Your task to perform on an android device: Search for "usb-a to usb-b" on amazon, select the first entry, add it to the cart, then select checkout. Image 0: 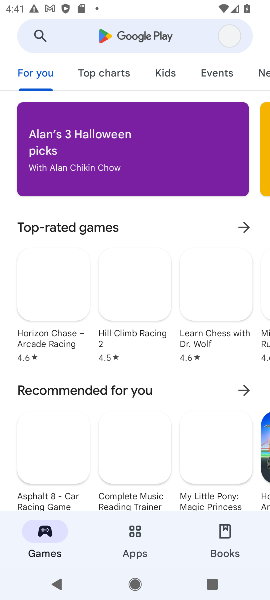
Step 0: press home button
Your task to perform on an android device: Search for "usb-a to usb-b" on amazon, select the first entry, add it to the cart, then select checkout. Image 1: 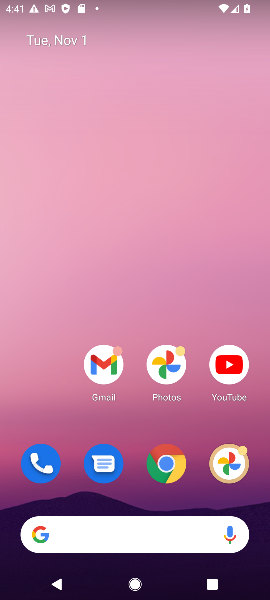
Step 1: click (164, 468)
Your task to perform on an android device: Search for "usb-a to usb-b" on amazon, select the first entry, add it to the cart, then select checkout. Image 2: 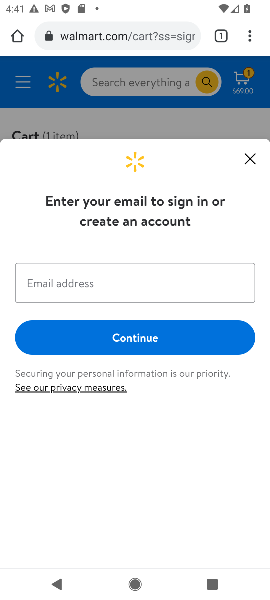
Step 2: click (252, 157)
Your task to perform on an android device: Search for "usb-a to usb-b" on amazon, select the first entry, add it to the cart, then select checkout. Image 3: 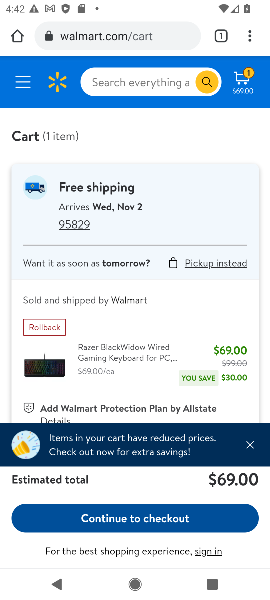
Step 3: click (133, 38)
Your task to perform on an android device: Search for "usb-a to usb-b" on amazon, select the first entry, add it to the cart, then select checkout. Image 4: 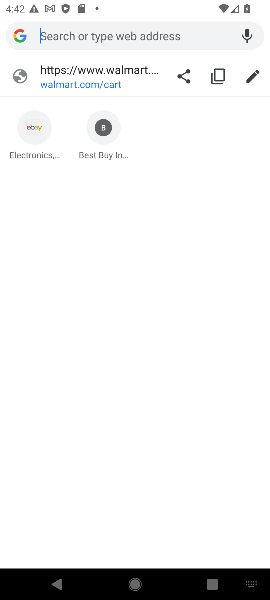
Step 4: type "amazon"
Your task to perform on an android device: Search for "usb-a to usb-b" on amazon, select the first entry, add it to the cart, then select checkout. Image 5: 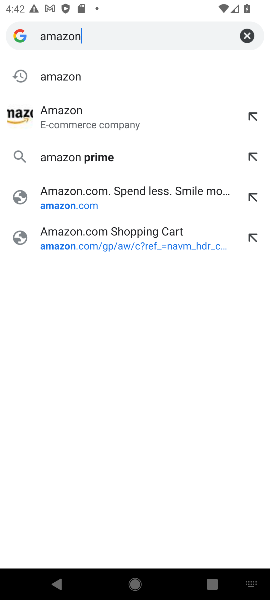
Step 5: click (56, 74)
Your task to perform on an android device: Search for "usb-a to usb-b" on amazon, select the first entry, add it to the cart, then select checkout. Image 6: 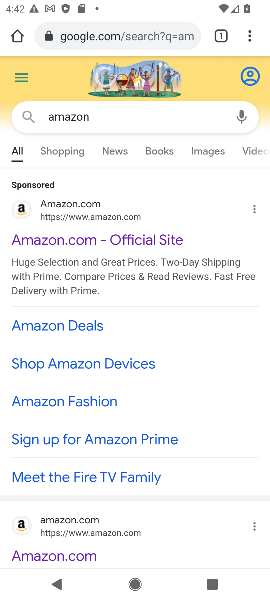
Step 6: click (107, 240)
Your task to perform on an android device: Search for "usb-a to usb-b" on amazon, select the first entry, add it to the cart, then select checkout. Image 7: 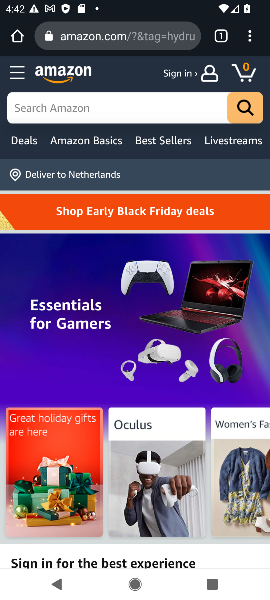
Step 7: click (81, 110)
Your task to perform on an android device: Search for "usb-a to usb-b" on amazon, select the first entry, add it to the cart, then select checkout. Image 8: 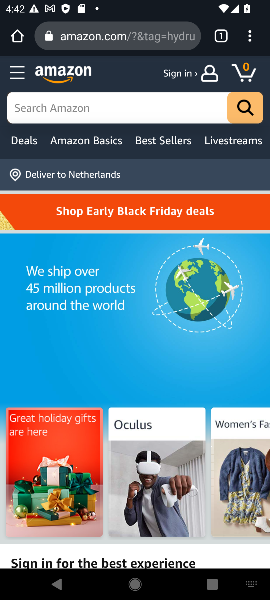
Step 8: type "usb-a to usb-b"
Your task to perform on an android device: Search for "usb-a to usb-b" on amazon, select the first entry, add it to the cart, then select checkout. Image 9: 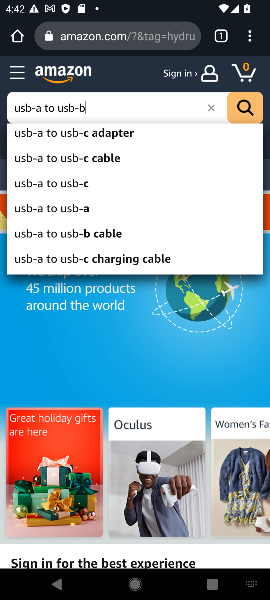
Step 9: press enter
Your task to perform on an android device: Search for "usb-a to usb-b" on amazon, select the first entry, add it to the cart, then select checkout. Image 10: 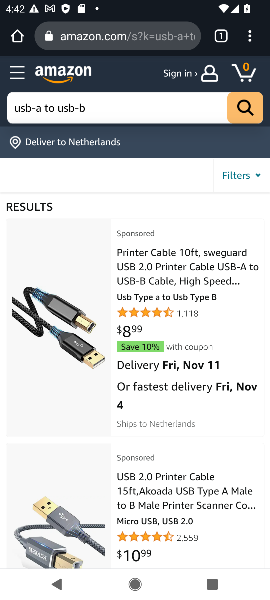
Step 10: click (160, 281)
Your task to perform on an android device: Search for "usb-a to usb-b" on amazon, select the first entry, add it to the cart, then select checkout. Image 11: 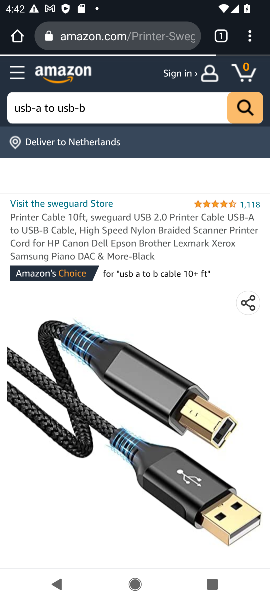
Step 11: drag from (102, 540) to (90, 139)
Your task to perform on an android device: Search for "usb-a to usb-b" on amazon, select the first entry, add it to the cart, then select checkout. Image 12: 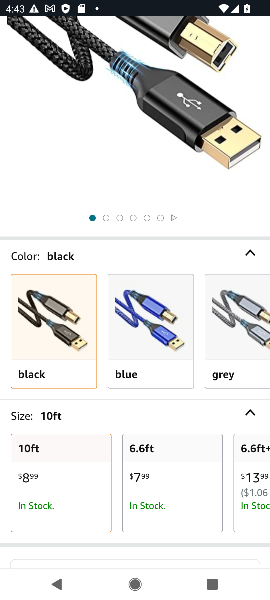
Step 12: drag from (98, 418) to (14, 67)
Your task to perform on an android device: Search for "usb-a to usb-b" on amazon, select the first entry, add it to the cart, then select checkout. Image 13: 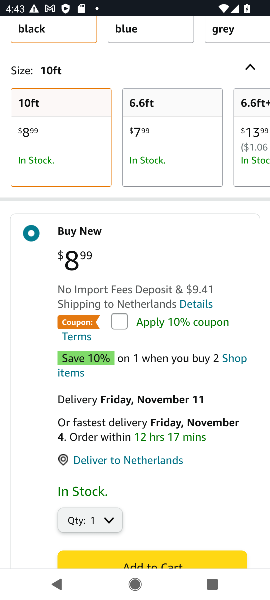
Step 13: drag from (181, 503) to (166, 359)
Your task to perform on an android device: Search for "usb-a to usb-b" on amazon, select the first entry, add it to the cart, then select checkout. Image 14: 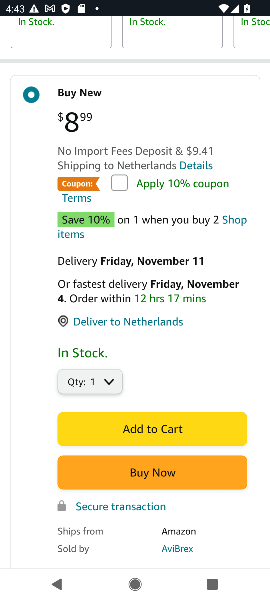
Step 14: click (159, 433)
Your task to perform on an android device: Search for "usb-a to usb-b" on amazon, select the first entry, add it to the cart, then select checkout. Image 15: 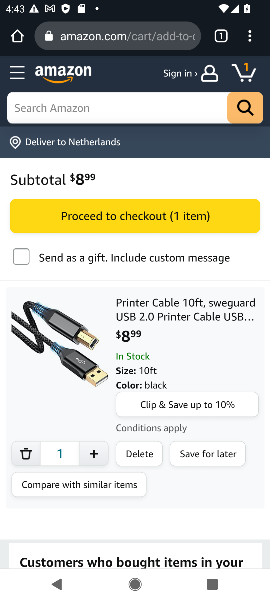
Step 15: click (245, 75)
Your task to perform on an android device: Search for "usb-a to usb-b" on amazon, select the first entry, add it to the cart, then select checkout. Image 16: 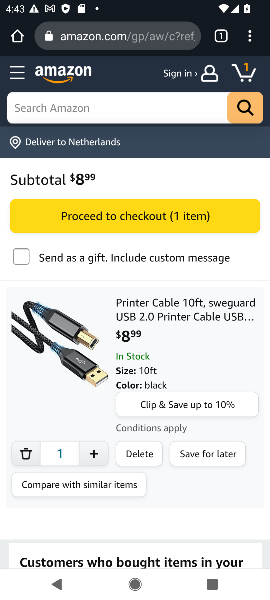
Step 16: drag from (176, 515) to (118, 347)
Your task to perform on an android device: Search for "usb-a to usb-b" on amazon, select the first entry, add it to the cart, then select checkout. Image 17: 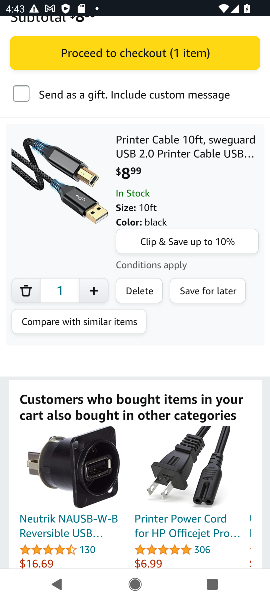
Step 17: click (150, 56)
Your task to perform on an android device: Search for "usb-a to usb-b" on amazon, select the first entry, add it to the cart, then select checkout. Image 18: 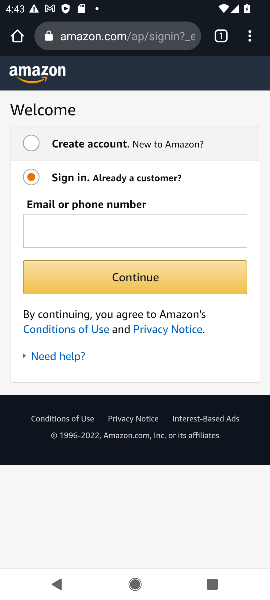
Step 18: task complete